Your task to perform on an android device: What's the weather going to be this weekend? Image 0: 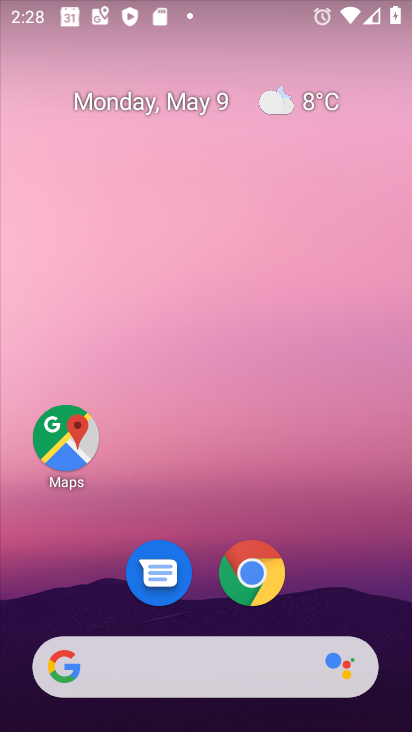
Step 0: drag from (152, 678) to (164, 580)
Your task to perform on an android device: What's the weather going to be this weekend? Image 1: 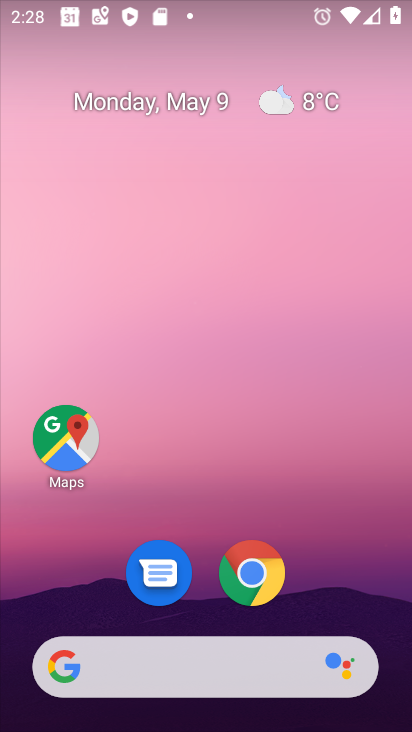
Step 1: click (312, 104)
Your task to perform on an android device: What's the weather going to be this weekend? Image 2: 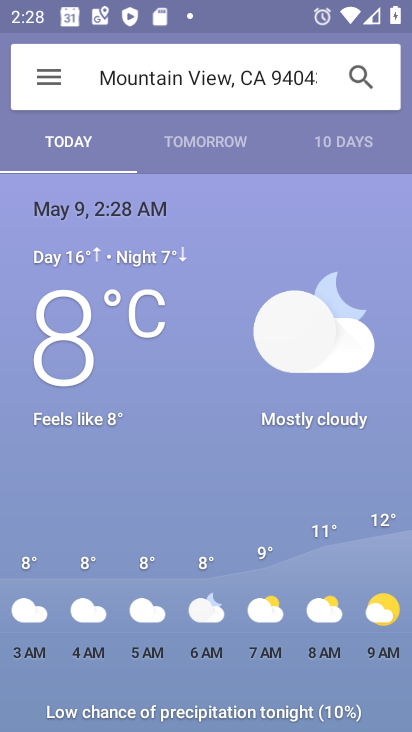
Step 2: click (350, 141)
Your task to perform on an android device: What's the weather going to be this weekend? Image 3: 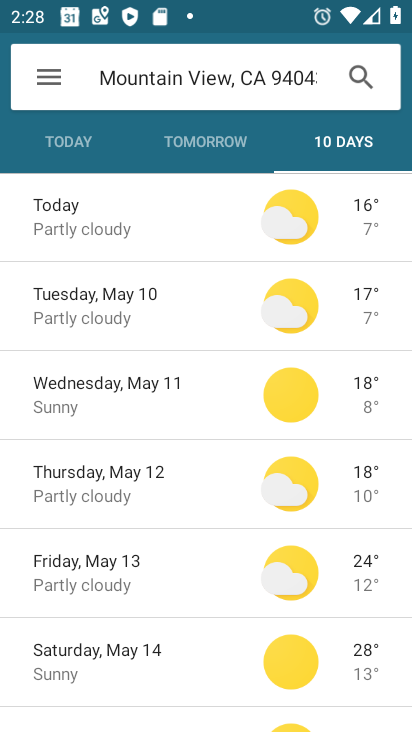
Step 3: click (94, 656)
Your task to perform on an android device: What's the weather going to be this weekend? Image 4: 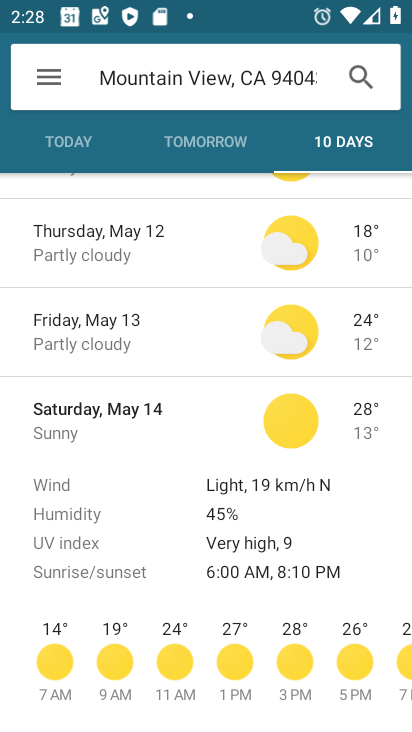
Step 4: task complete